Your task to perform on an android device: Search for Mexican restaurants on Maps Image 0: 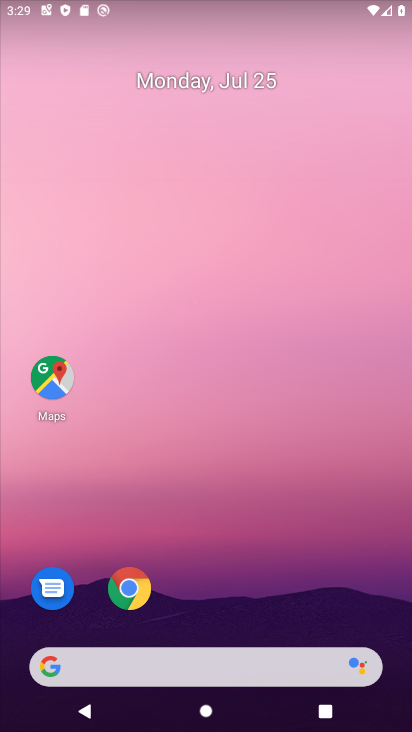
Step 0: click (63, 382)
Your task to perform on an android device: Search for Mexican restaurants on Maps Image 1: 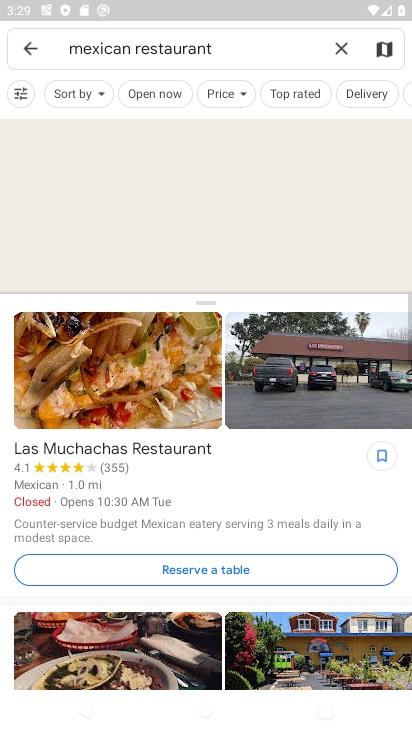
Step 1: click (333, 45)
Your task to perform on an android device: Search for Mexican restaurants on Maps Image 2: 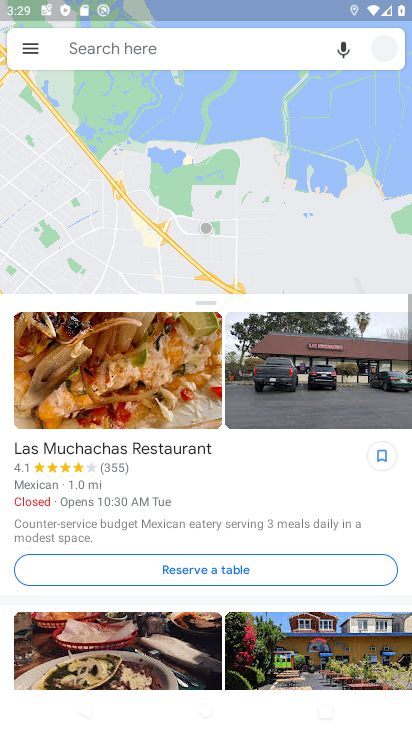
Step 2: click (203, 47)
Your task to perform on an android device: Search for Mexican restaurants on Maps Image 3: 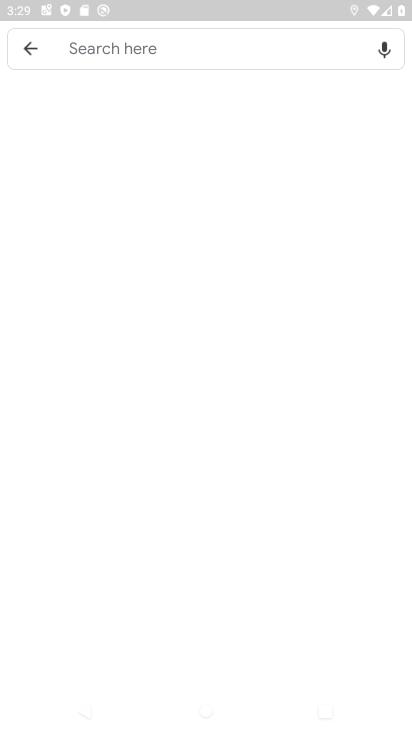
Step 3: click (132, 47)
Your task to perform on an android device: Search for Mexican restaurants on Maps Image 4: 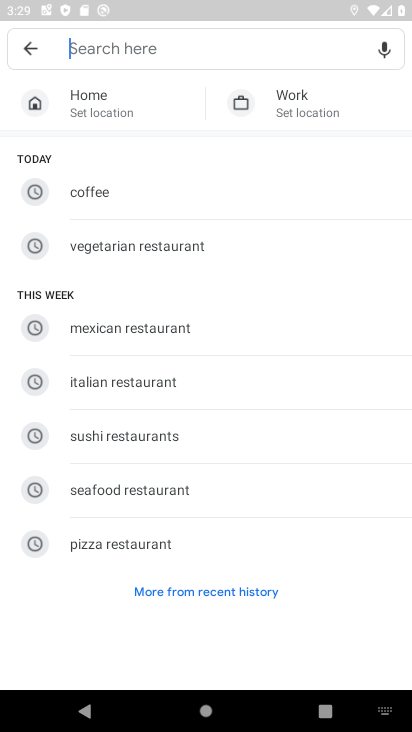
Step 4: click (206, 327)
Your task to perform on an android device: Search for Mexican restaurants on Maps Image 5: 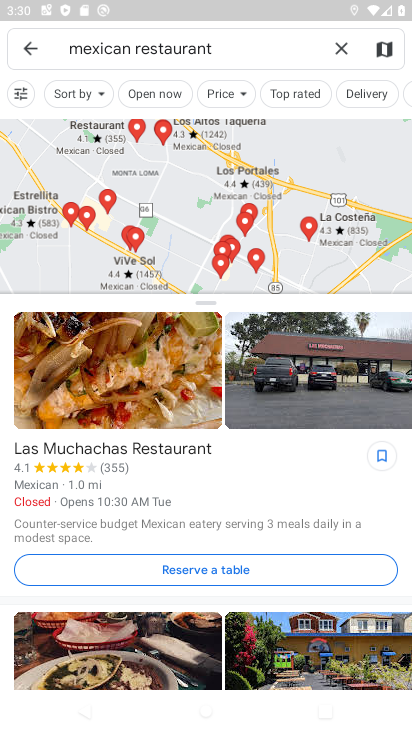
Step 5: task complete